Your task to perform on an android device: Open calendar and show me the first week of next month Image 0: 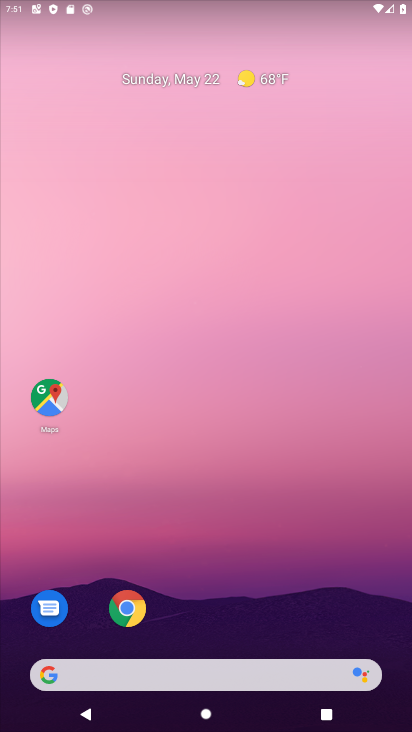
Step 0: drag from (246, 725) to (246, 142)
Your task to perform on an android device: Open calendar and show me the first week of next month Image 1: 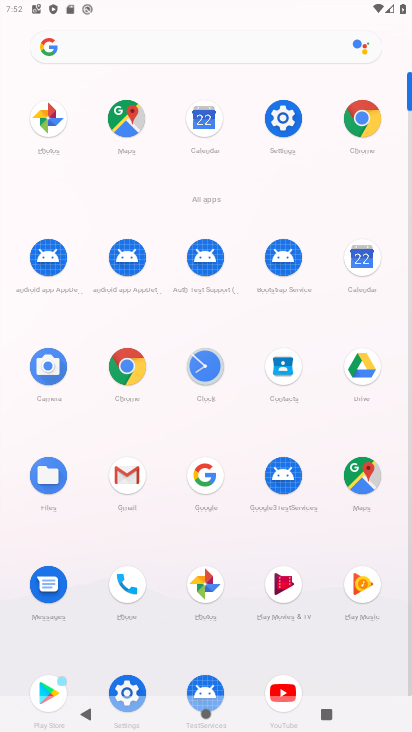
Step 1: click (358, 265)
Your task to perform on an android device: Open calendar and show me the first week of next month Image 2: 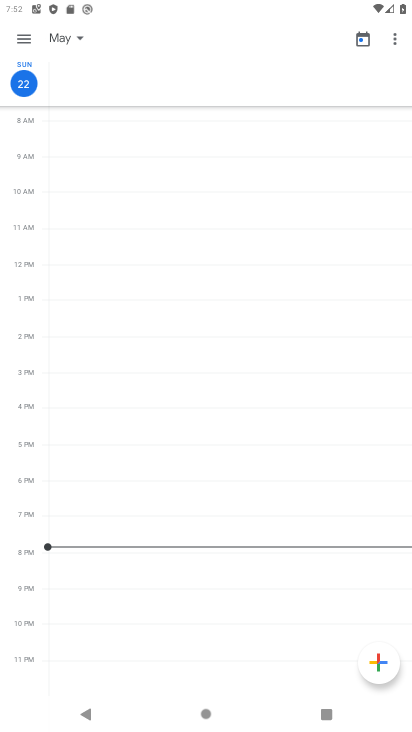
Step 2: click (76, 32)
Your task to perform on an android device: Open calendar and show me the first week of next month Image 3: 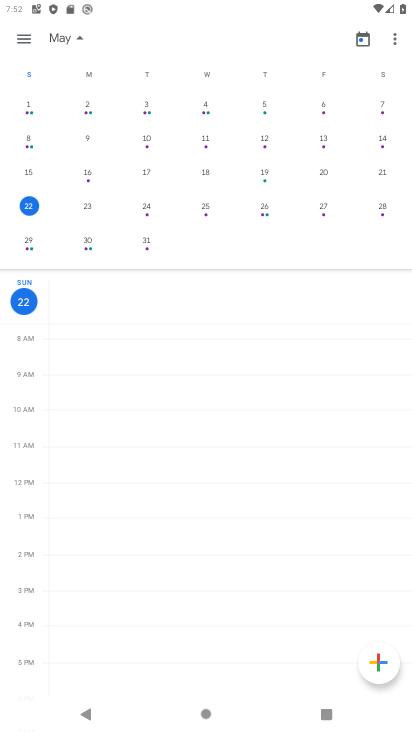
Step 3: drag from (328, 168) to (6, 180)
Your task to perform on an android device: Open calendar and show me the first week of next month Image 4: 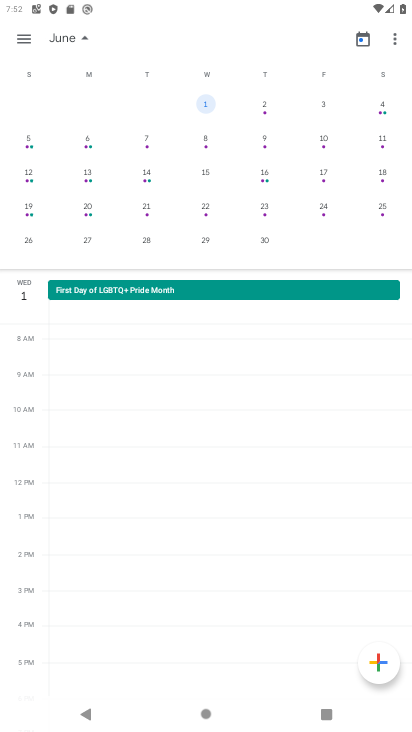
Step 4: click (91, 138)
Your task to perform on an android device: Open calendar and show me the first week of next month Image 5: 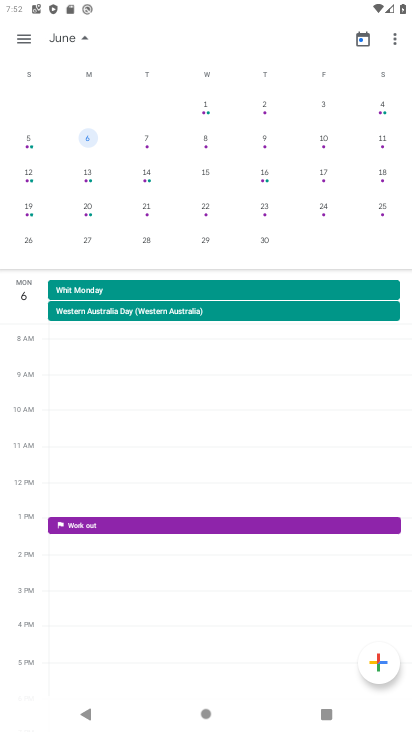
Step 5: click (24, 40)
Your task to perform on an android device: Open calendar and show me the first week of next month Image 6: 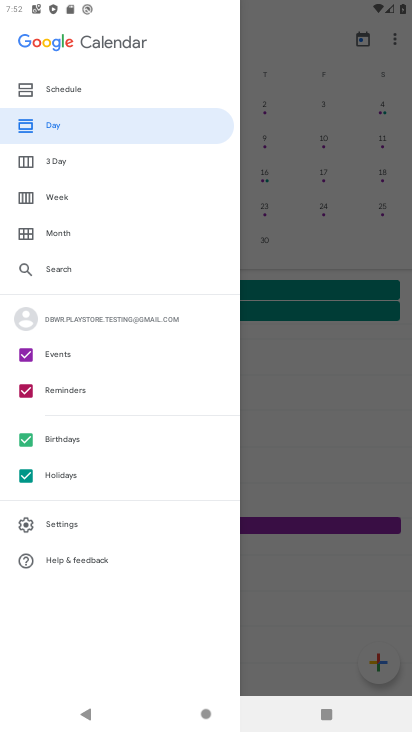
Step 6: click (58, 195)
Your task to perform on an android device: Open calendar and show me the first week of next month Image 7: 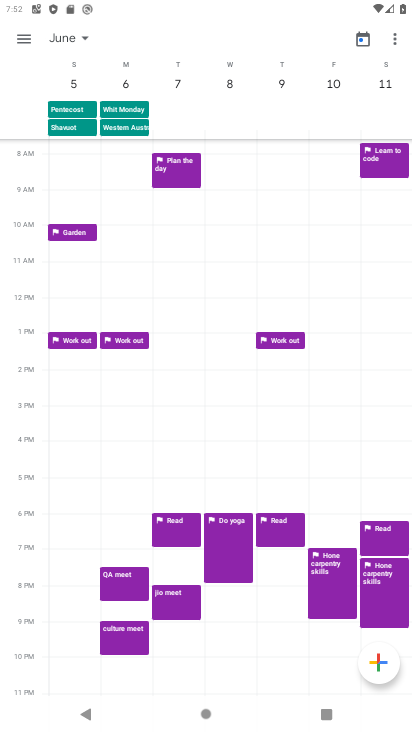
Step 7: task complete